Your task to perform on an android device: turn off picture-in-picture Image 0: 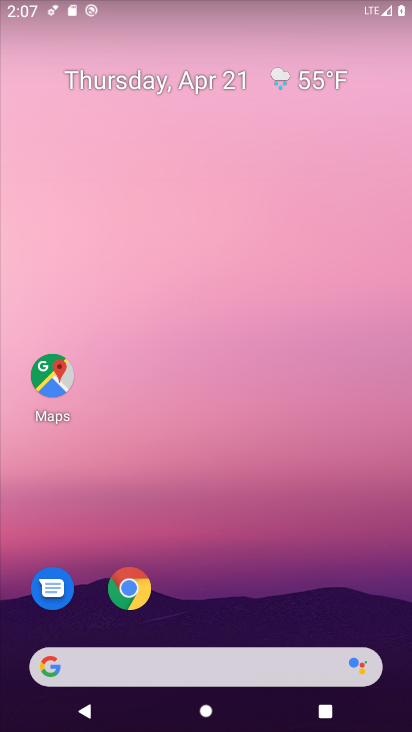
Step 0: click (149, 580)
Your task to perform on an android device: turn off picture-in-picture Image 1: 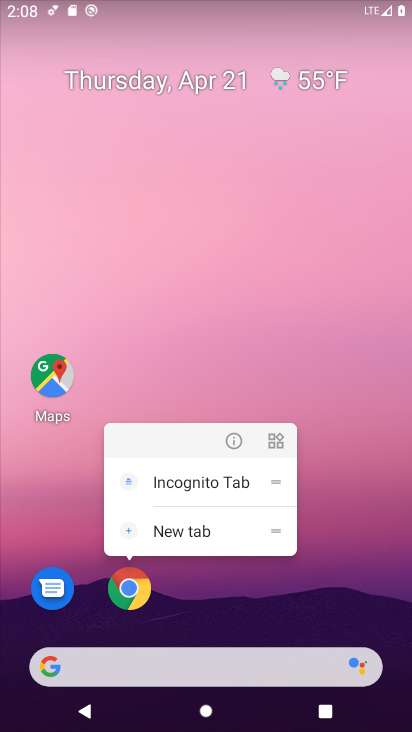
Step 1: click (222, 443)
Your task to perform on an android device: turn off picture-in-picture Image 2: 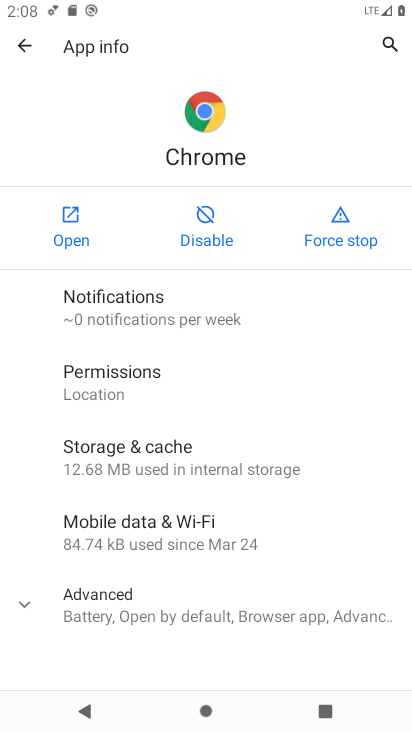
Step 2: click (199, 604)
Your task to perform on an android device: turn off picture-in-picture Image 3: 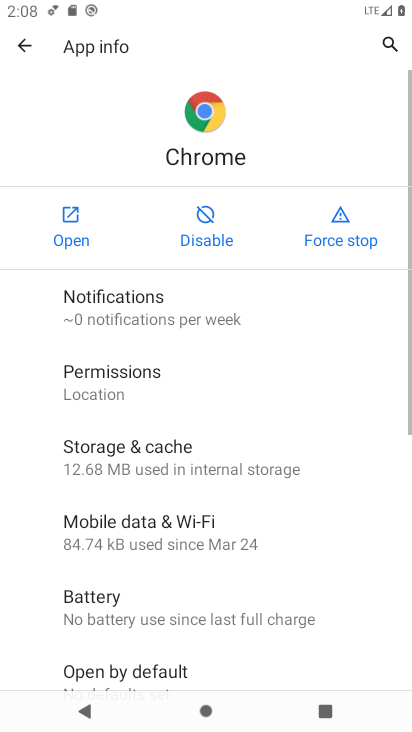
Step 3: drag from (192, 590) to (183, 434)
Your task to perform on an android device: turn off picture-in-picture Image 4: 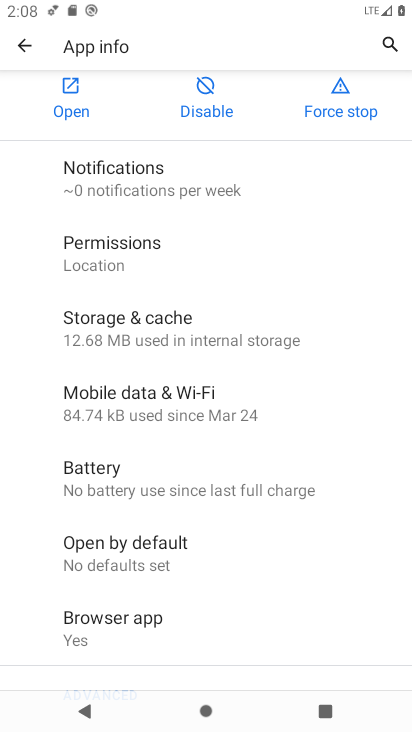
Step 4: drag from (182, 529) to (180, 467)
Your task to perform on an android device: turn off picture-in-picture Image 5: 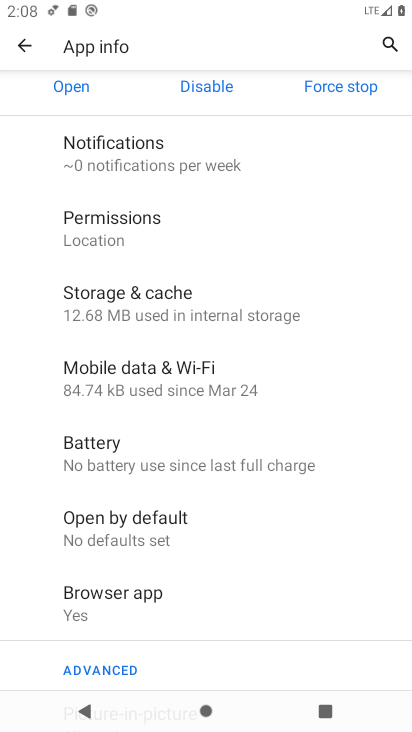
Step 5: drag from (137, 517) to (153, 425)
Your task to perform on an android device: turn off picture-in-picture Image 6: 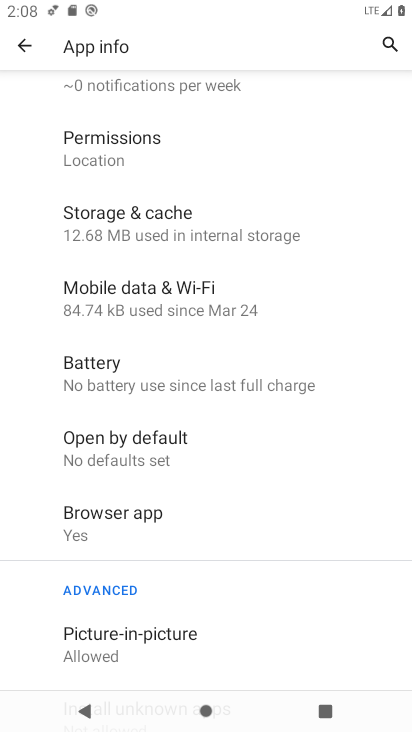
Step 6: click (190, 638)
Your task to perform on an android device: turn off picture-in-picture Image 7: 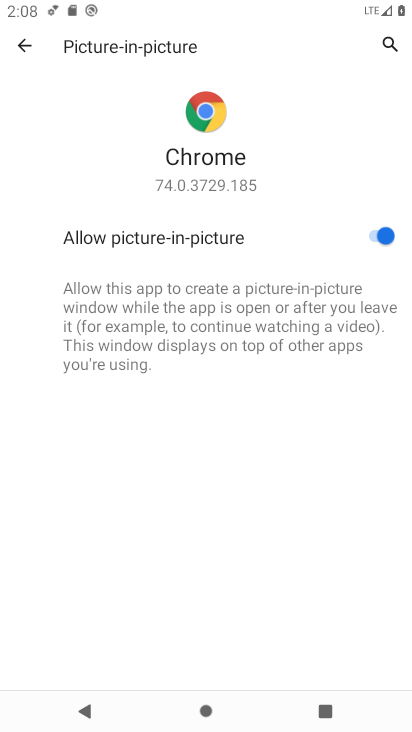
Step 7: click (394, 235)
Your task to perform on an android device: turn off picture-in-picture Image 8: 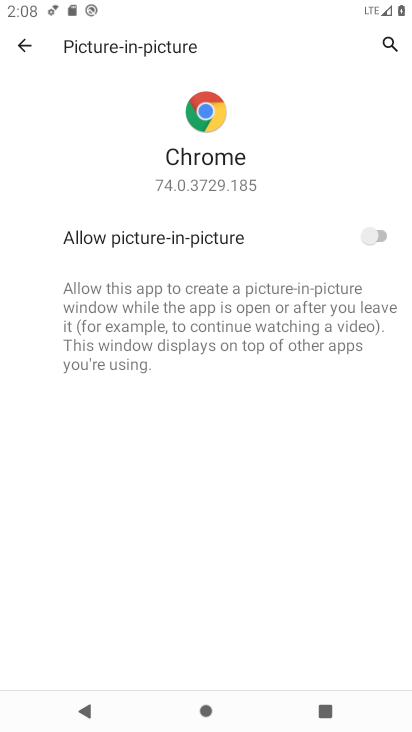
Step 8: task complete